Your task to perform on an android device: Clear all items from cart on walmart. Image 0: 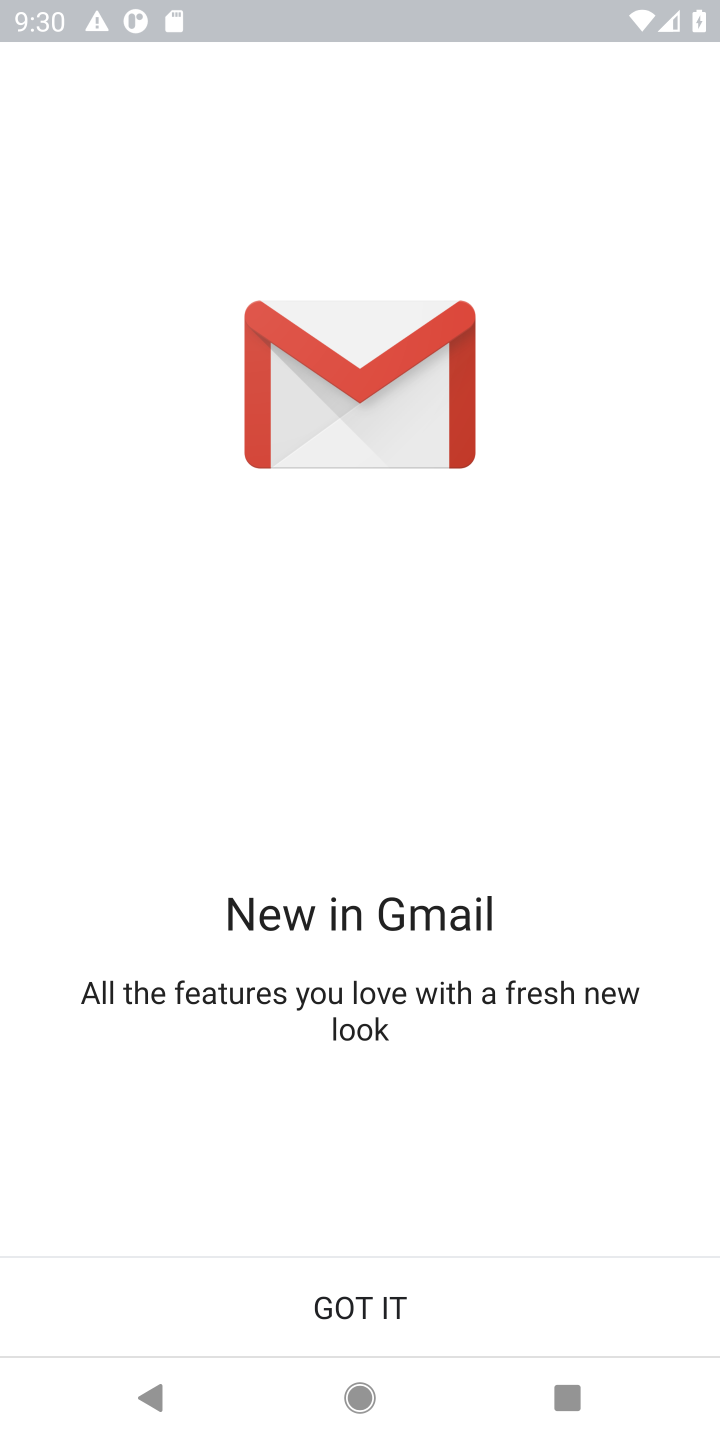
Step 0: press home button
Your task to perform on an android device: Clear all items from cart on walmart. Image 1: 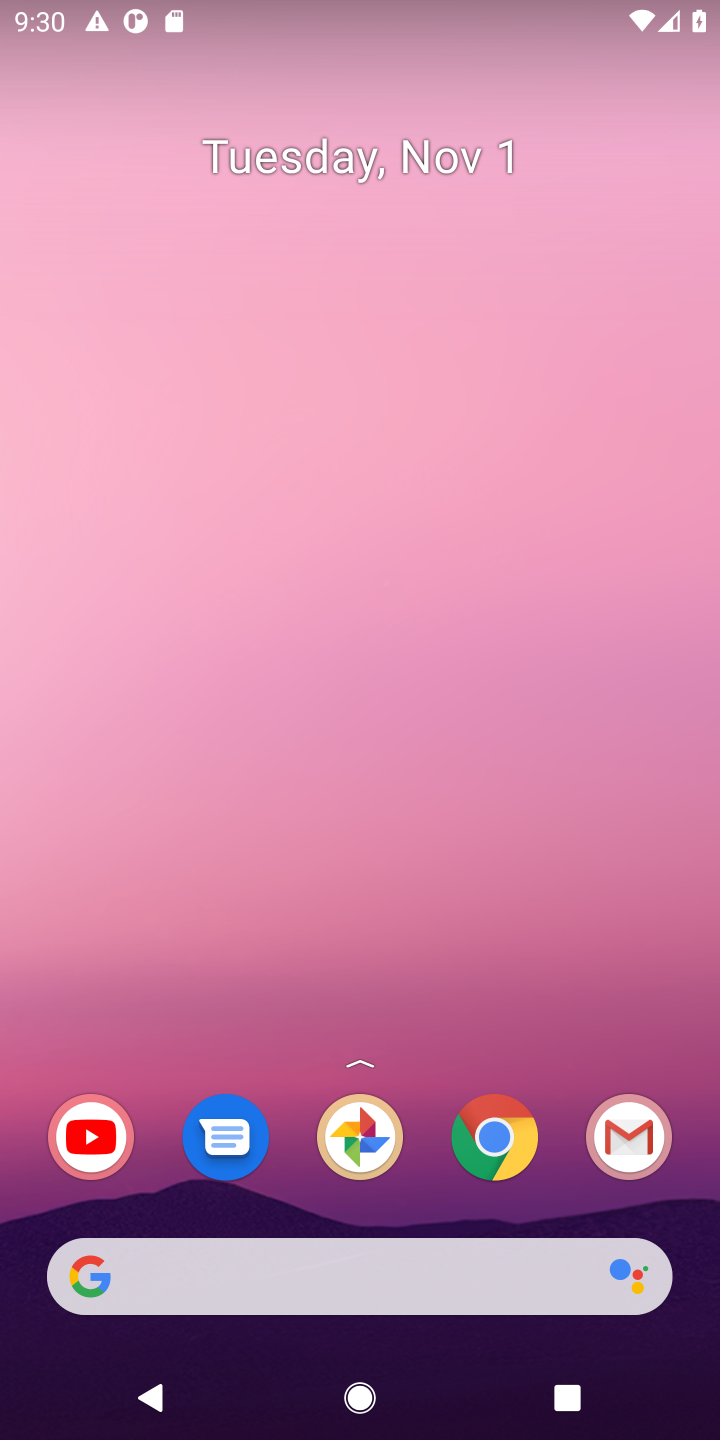
Step 1: click (346, 1269)
Your task to perform on an android device: Clear all items from cart on walmart. Image 2: 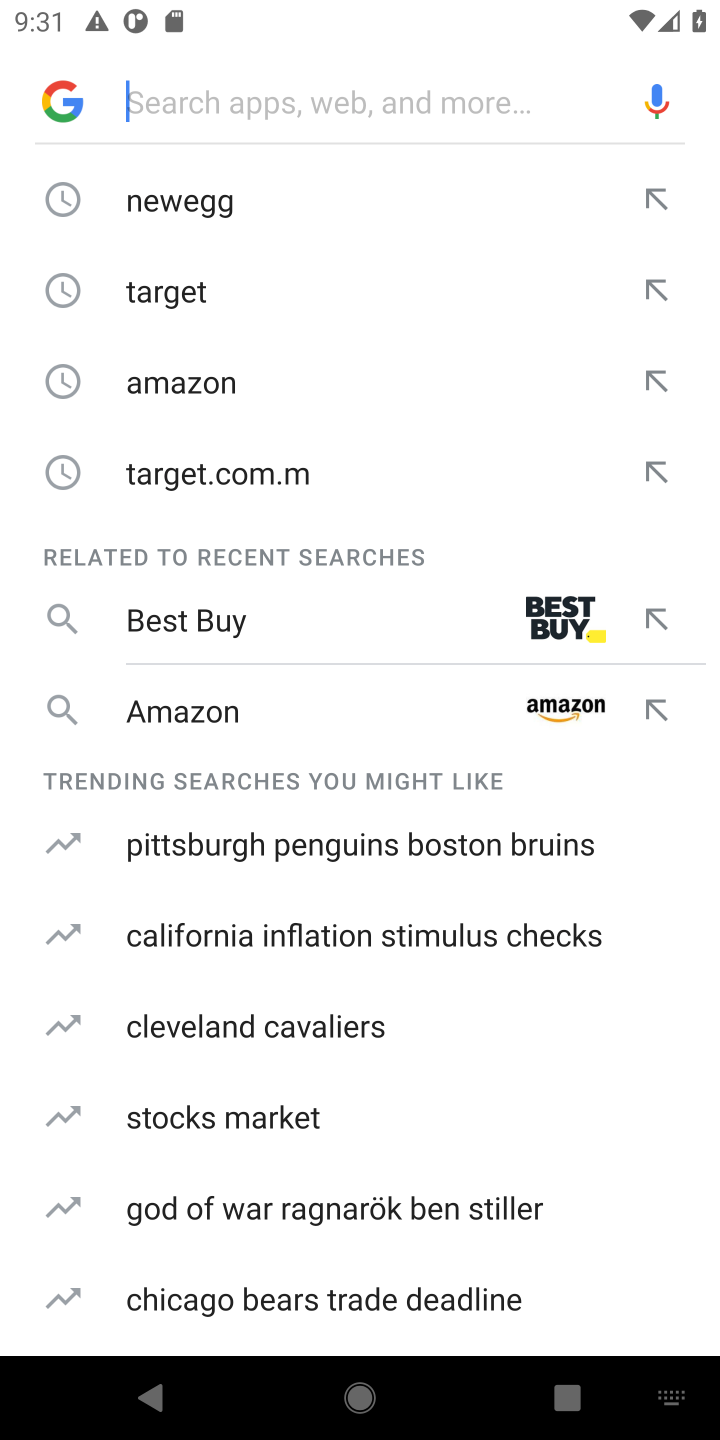
Step 2: type "walmart"
Your task to perform on an android device: Clear all items from cart on walmart. Image 3: 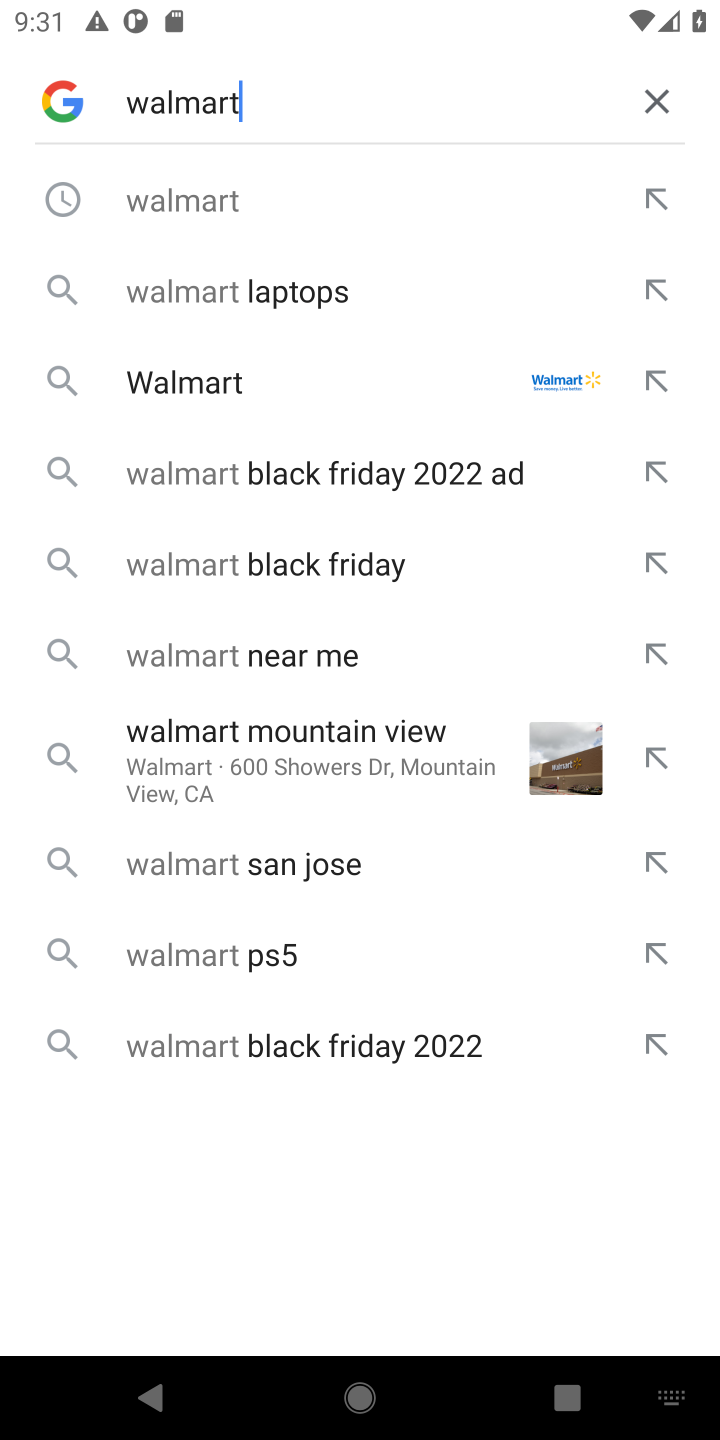
Step 3: click (167, 205)
Your task to perform on an android device: Clear all items from cart on walmart. Image 4: 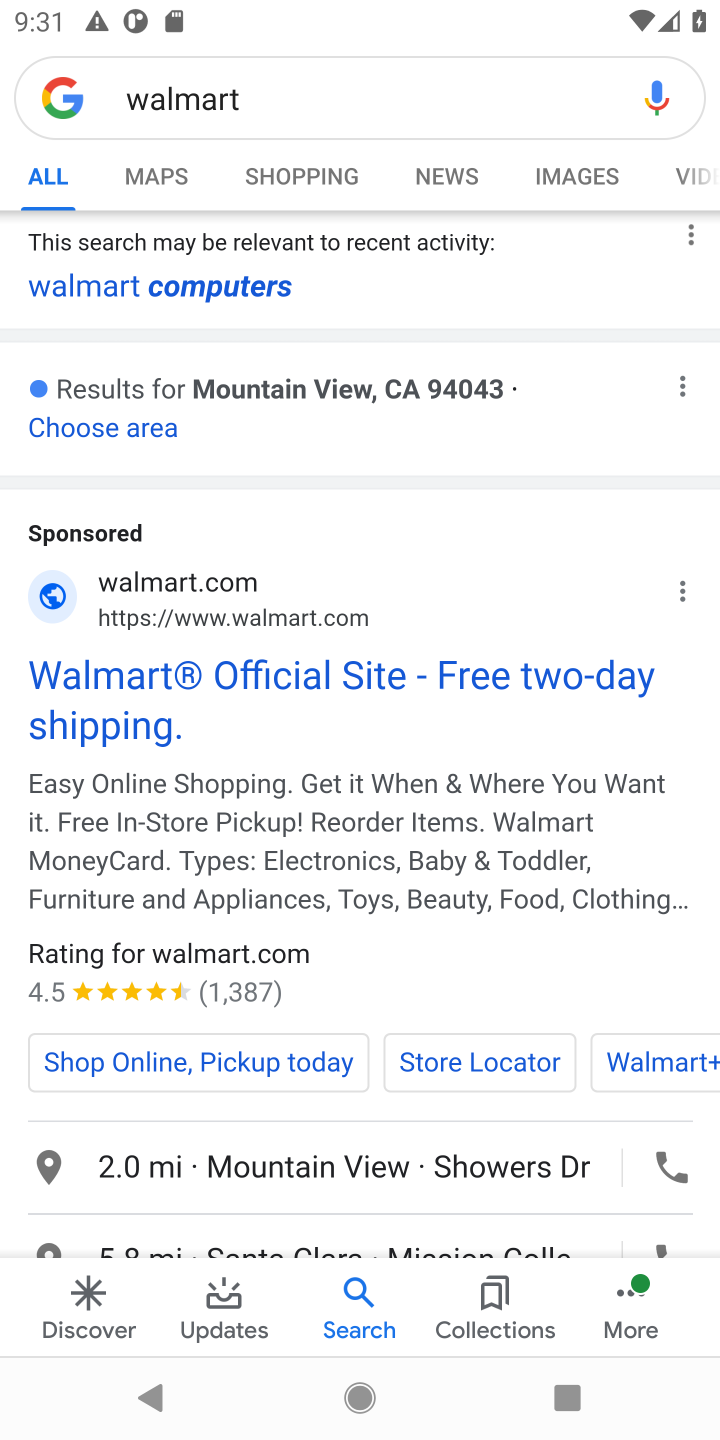
Step 4: click (145, 579)
Your task to perform on an android device: Clear all items from cart on walmart. Image 5: 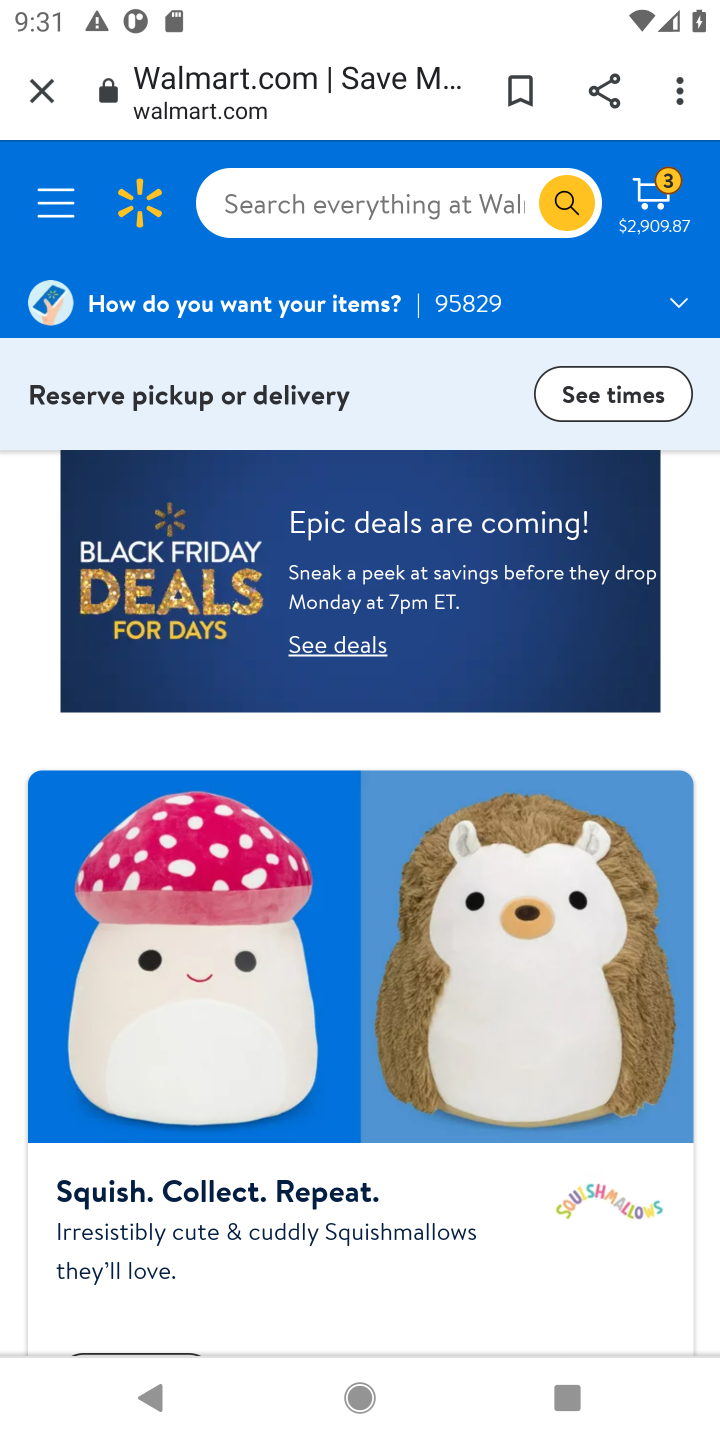
Step 5: click (645, 194)
Your task to perform on an android device: Clear all items from cart on walmart. Image 6: 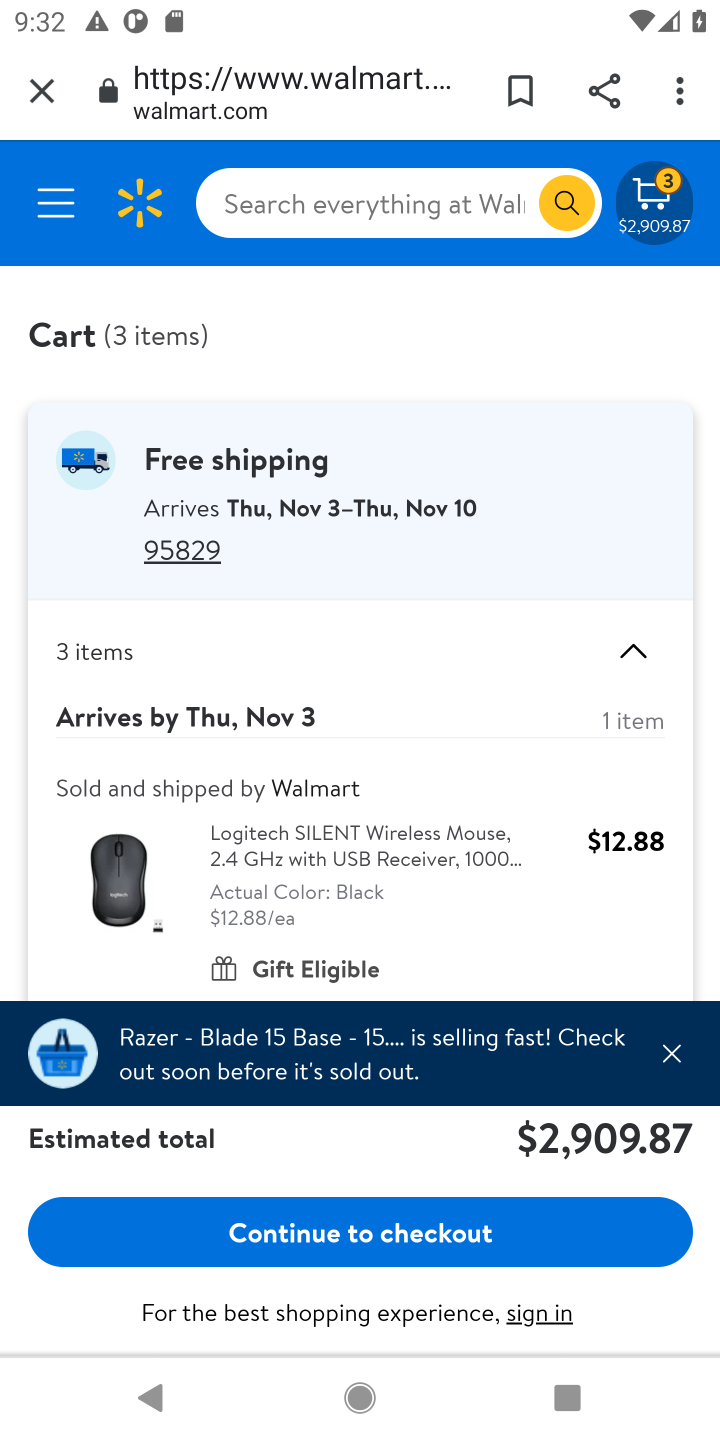
Step 6: click (669, 1062)
Your task to perform on an android device: Clear all items from cart on walmart. Image 7: 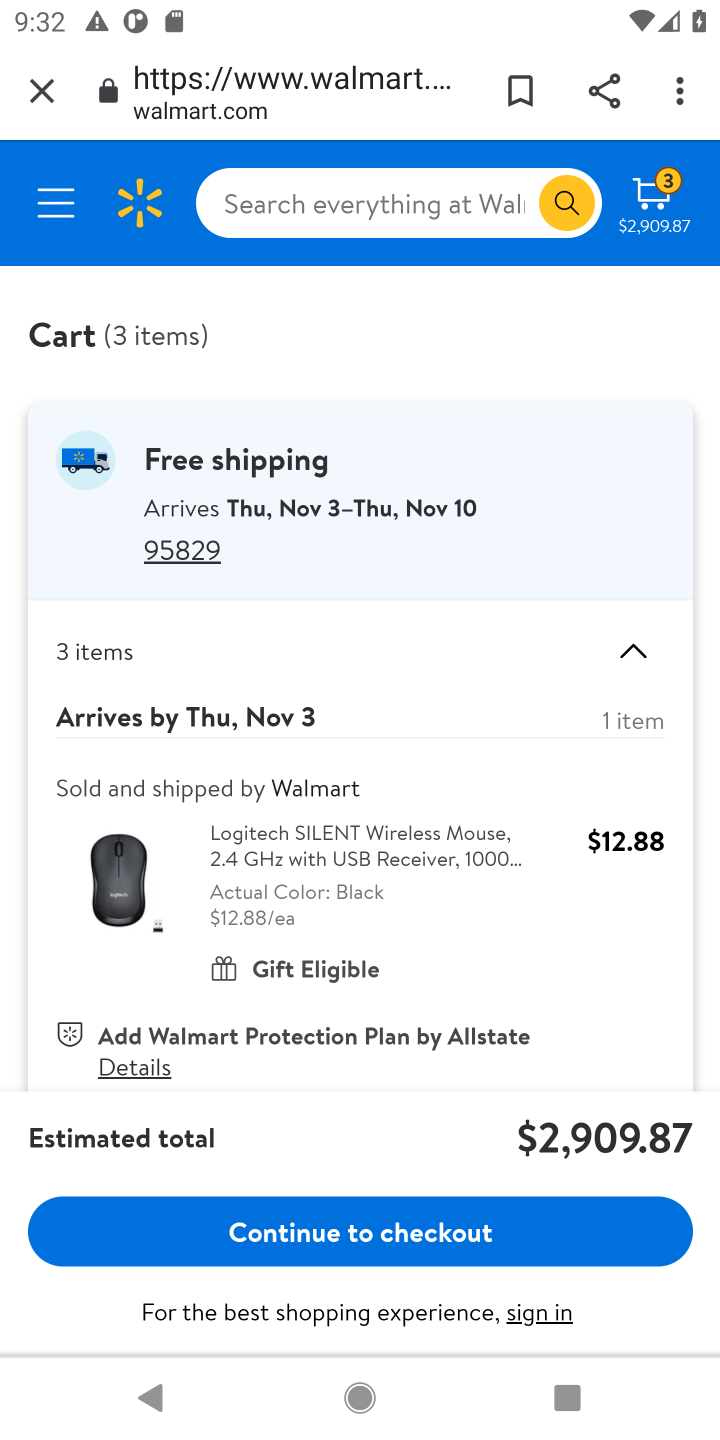
Step 7: drag from (397, 871) to (417, 658)
Your task to perform on an android device: Clear all items from cart on walmart. Image 8: 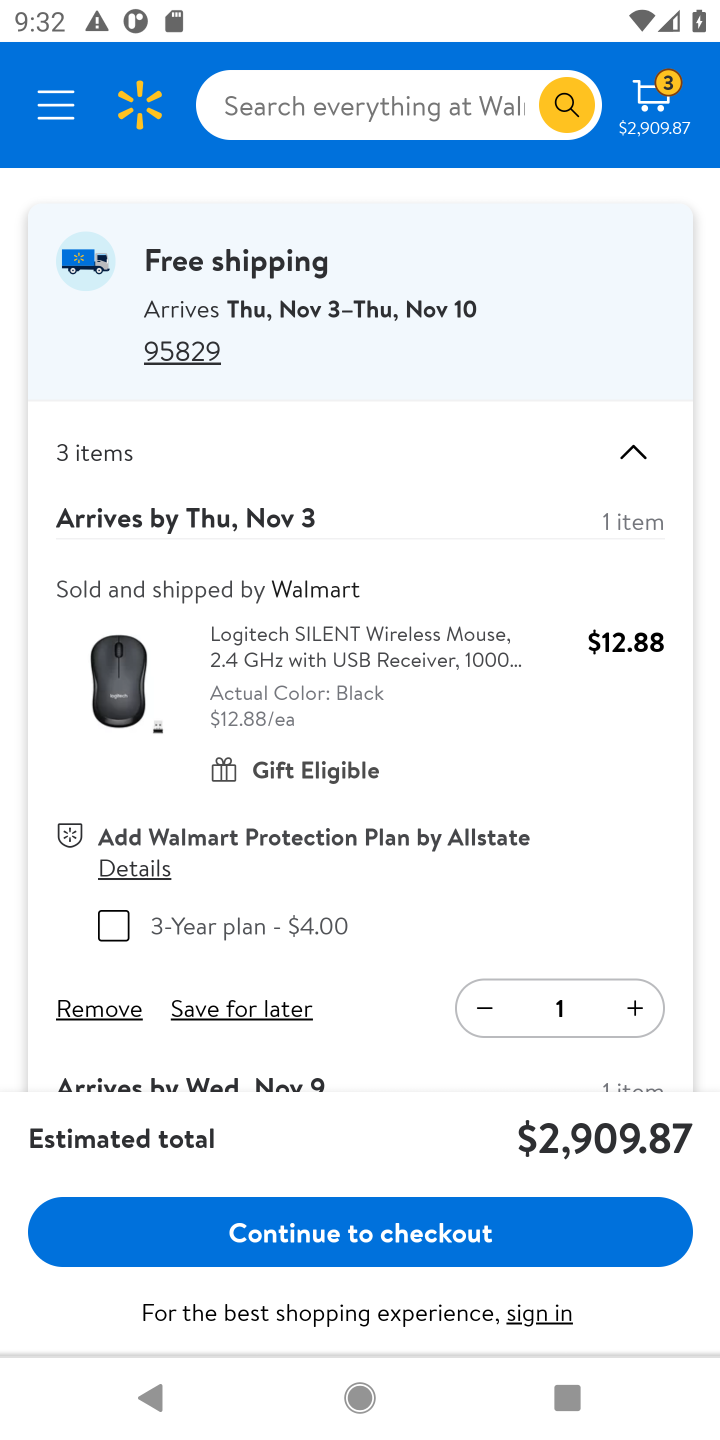
Step 8: drag from (460, 939) to (502, 588)
Your task to perform on an android device: Clear all items from cart on walmart. Image 9: 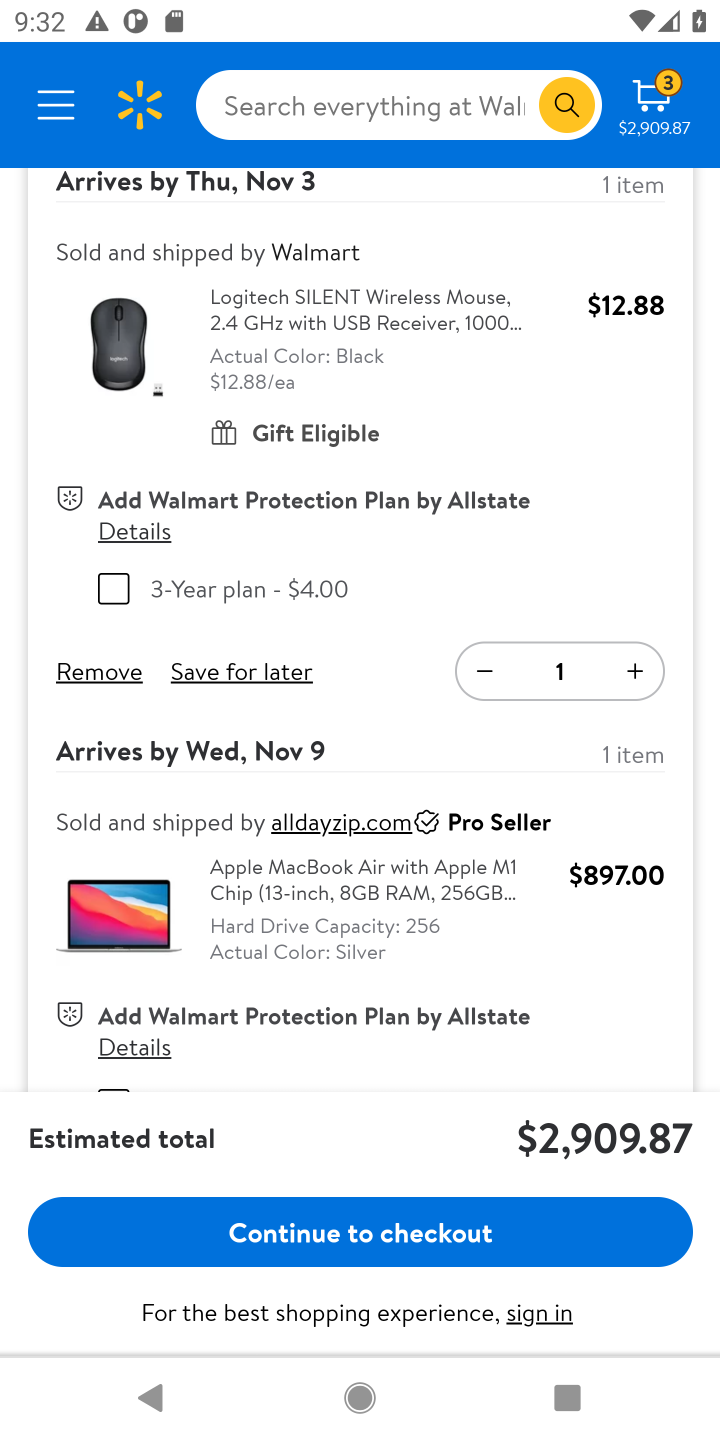
Step 9: click (80, 671)
Your task to perform on an android device: Clear all items from cart on walmart. Image 10: 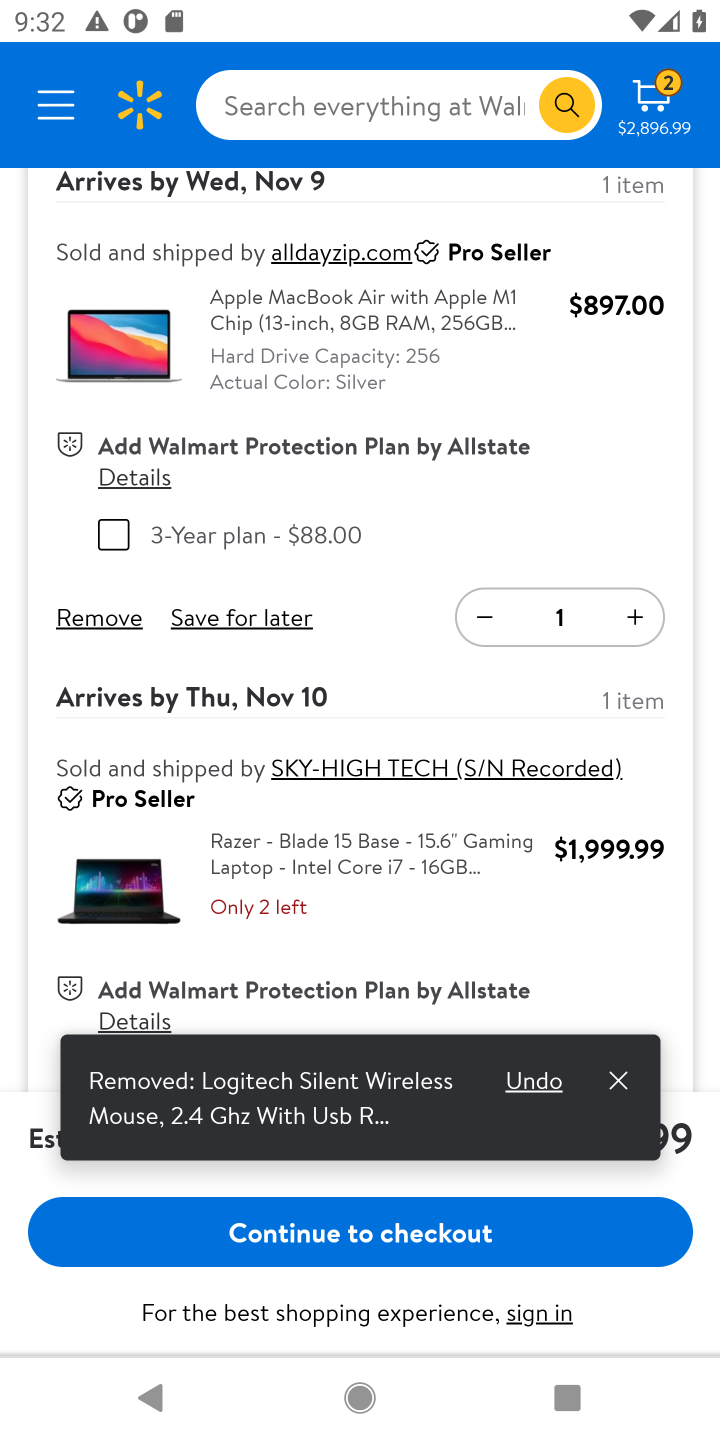
Step 10: click (95, 615)
Your task to perform on an android device: Clear all items from cart on walmart. Image 11: 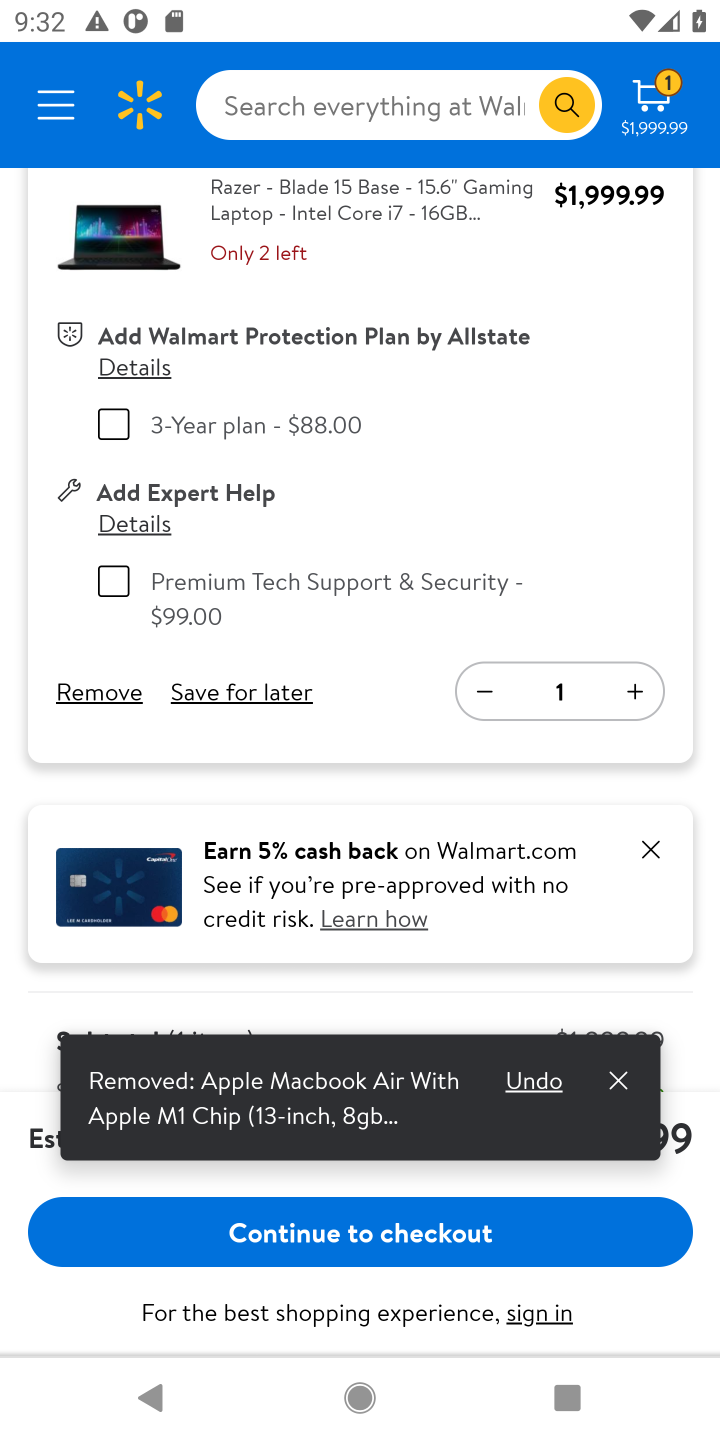
Step 11: click (100, 696)
Your task to perform on an android device: Clear all items from cart on walmart. Image 12: 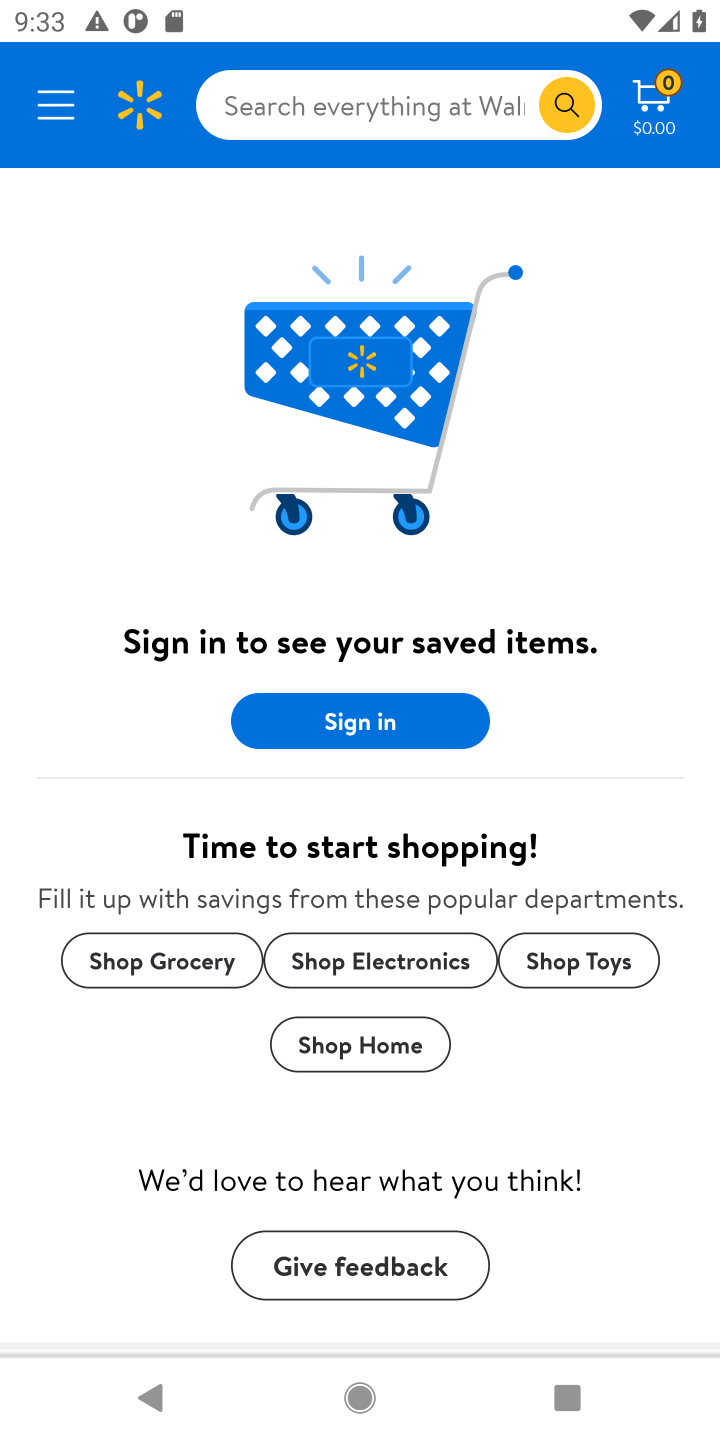
Step 12: task complete